Your task to perform on an android device: Go to Google maps Image 0: 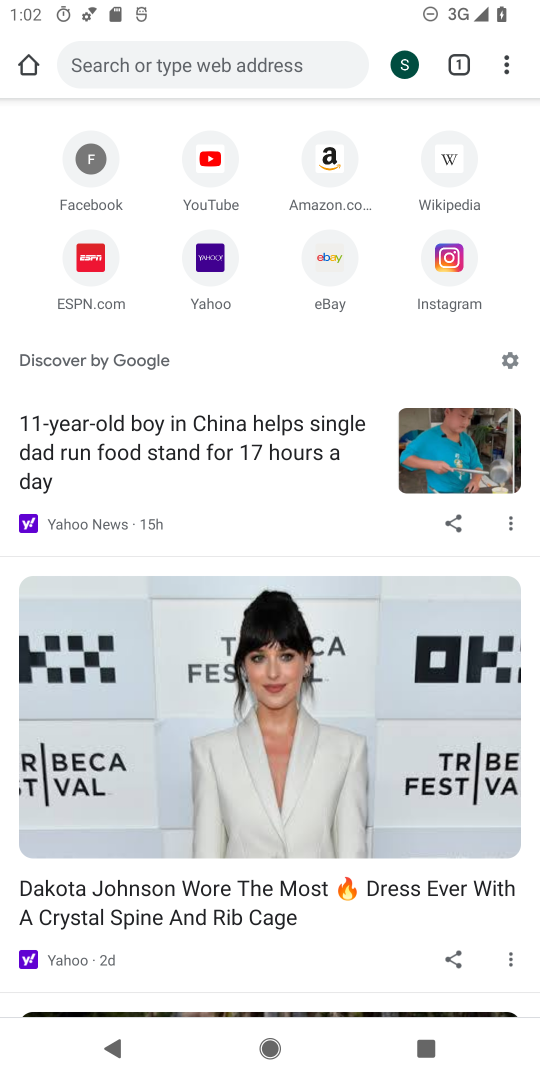
Step 0: press home button
Your task to perform on an android device: Go to Google maps Image 1: 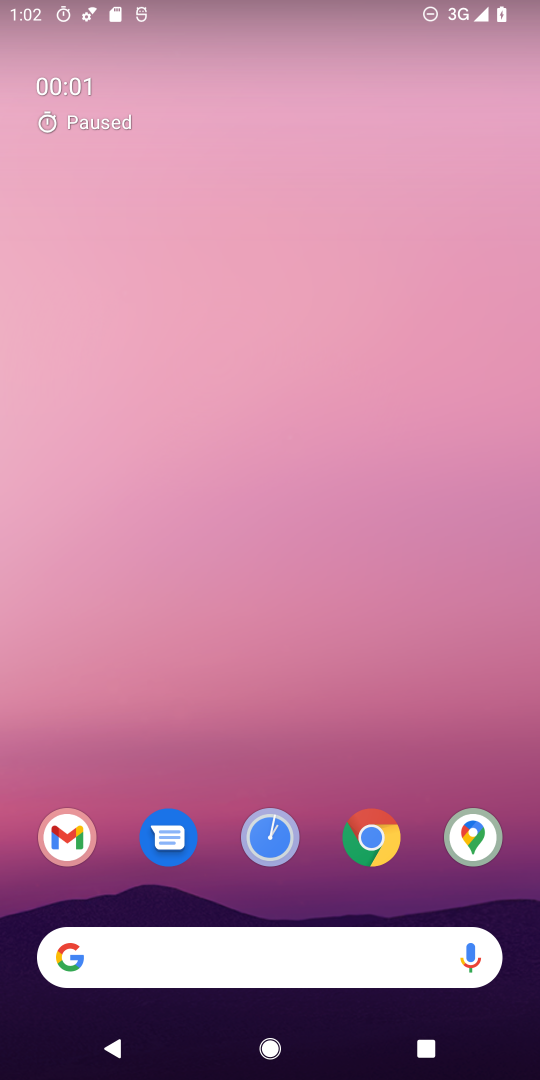
Step 1: drag from (427, 889) to (244, 62)
Your task to perform on an android device: Go to Google maps Image 2: 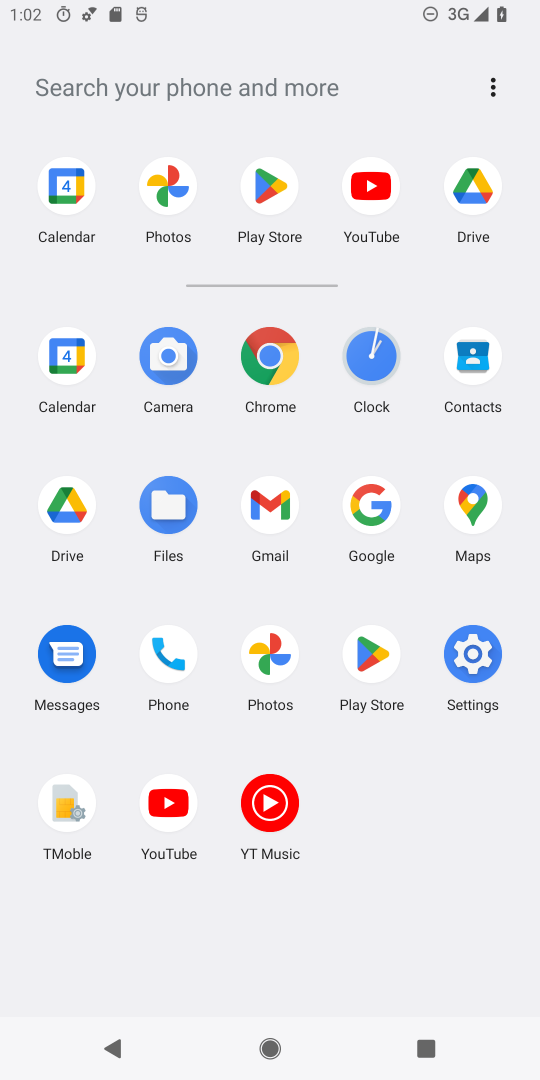
Step 2: click (467, 521)
Your task to perform on an android device: Go to Google maps Image 3: 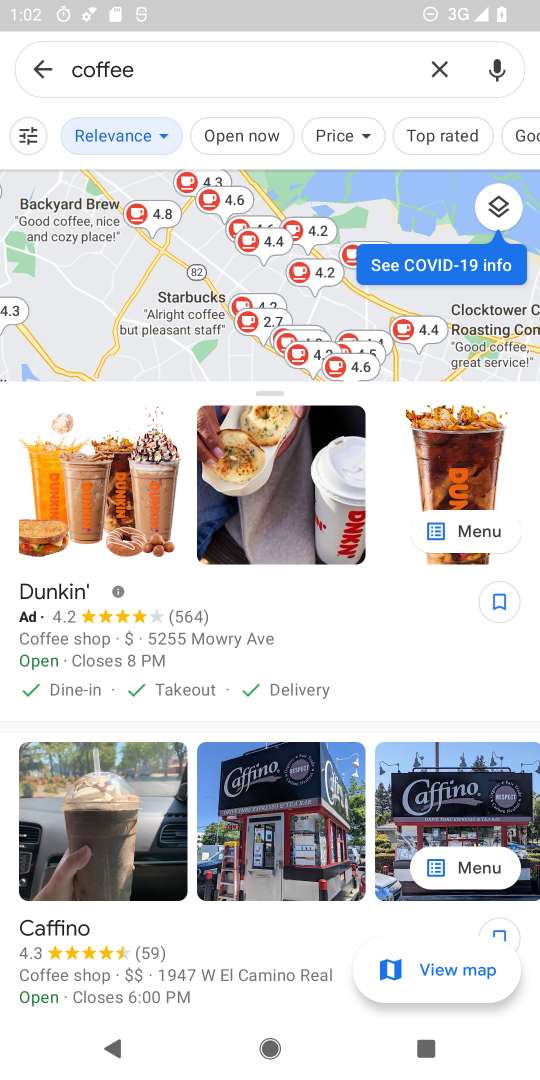
Step 3: click (435, 76)
Your task to perform on an android device: Go to Google maps Image 4: 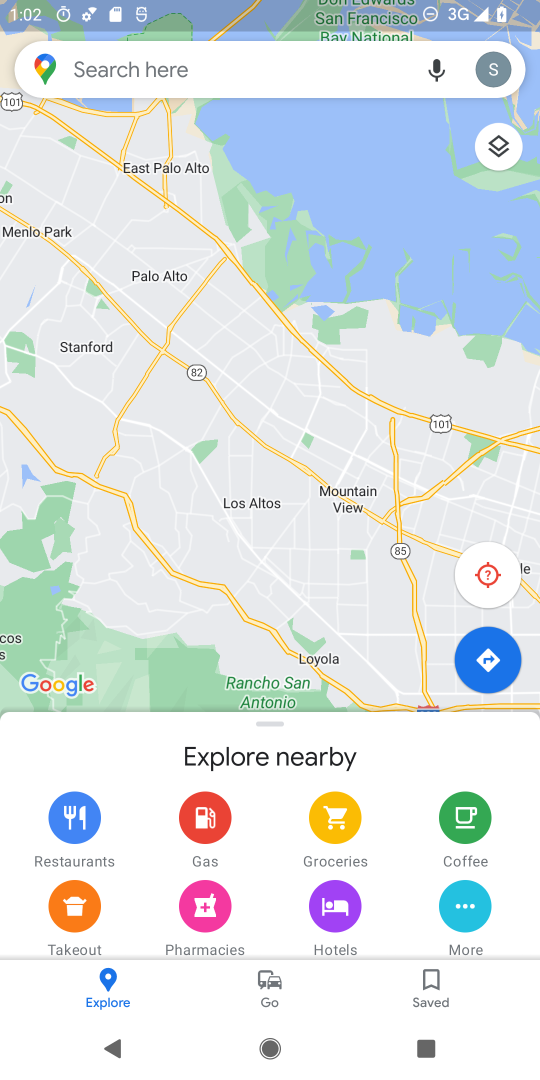
Step 4: task complete